Your task to perform on an android device: toggle priority inbox in the gmail app Image 0: 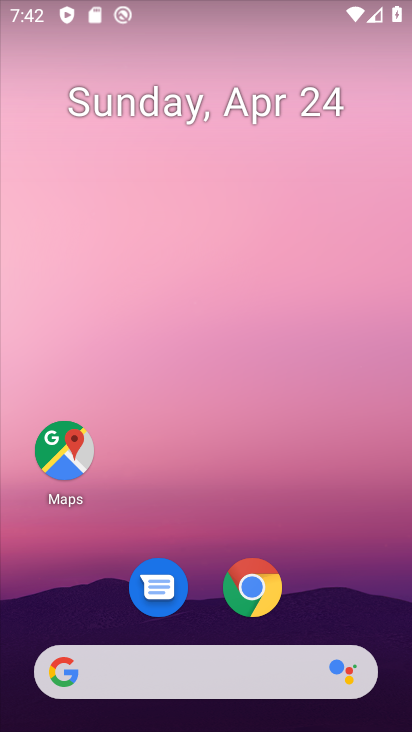
Step 0: drag from (371, 575) to (339, 125)
Your task to perform on an android device: toggle priority inbox in the gmail app Image 1: 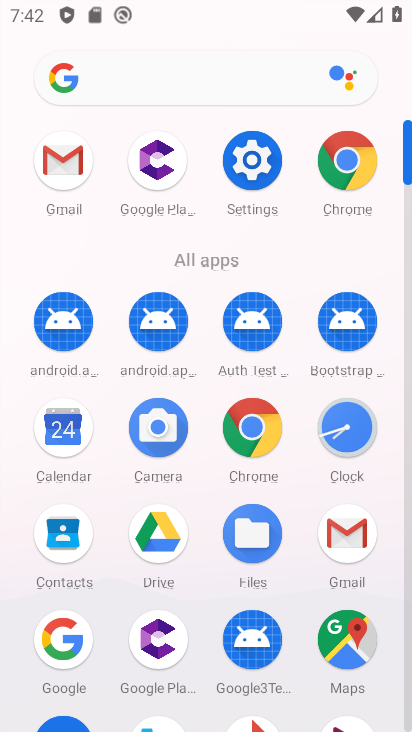
Step 1: click (360, 549)
Your task to perform on an android device: toggle priority inbox in the gmail app Image 2: 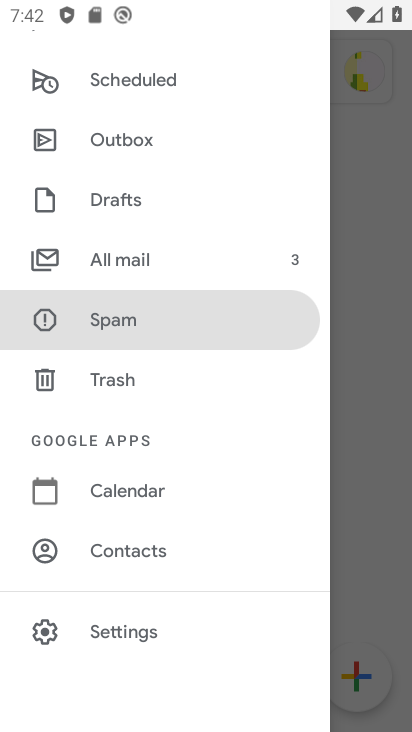
Step 2: click (146, 623)
Your task to perform on an android device: toggle priority inbox in the gmail app Image 3: 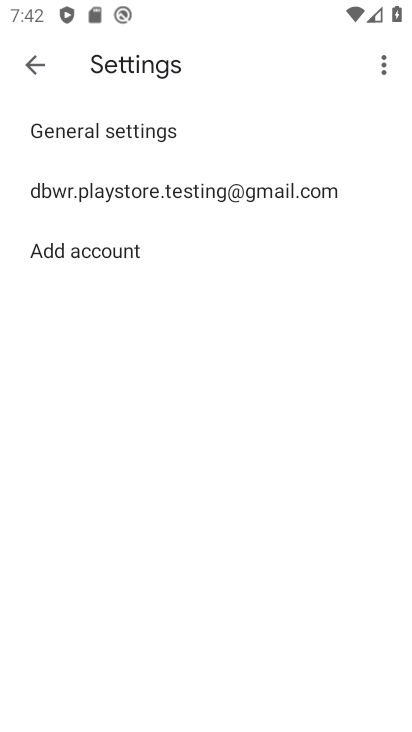
Step 3: click (151, 195)
Your task to perform on an android device: toggle priority inbox in the gmail app Image 4: 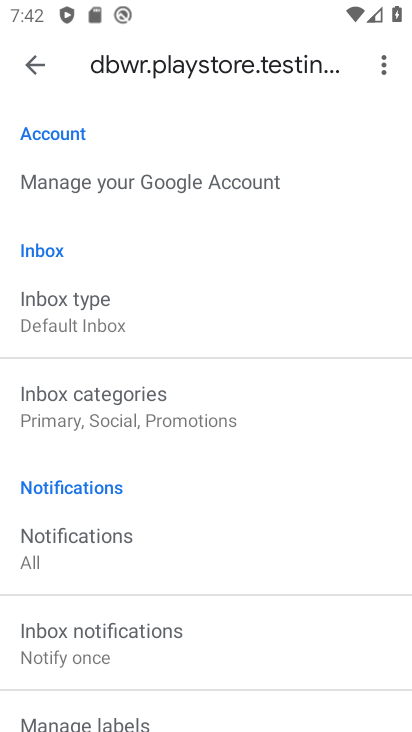
Step 4: click (85, 306)
Your task to perform on an android device: toggle priority inbox in the gmail app Image 5: 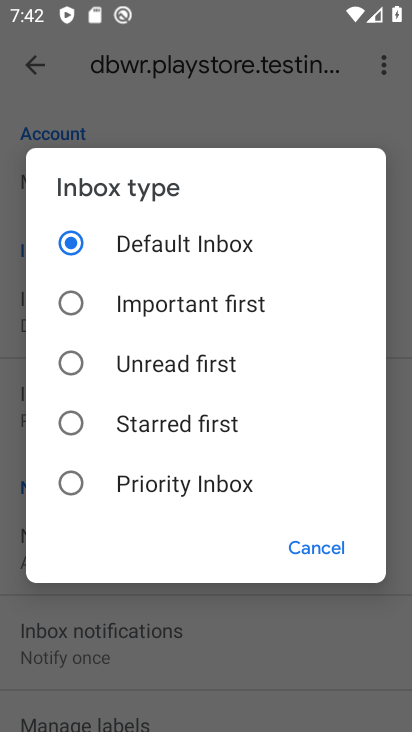
Step 5: click (135, 481)
Your task to perform on an android device: toggle priority inbox in the gmail app Image 6: 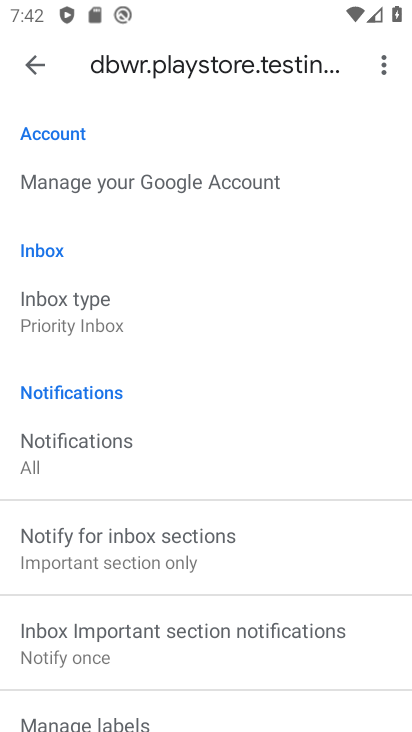
Step 6: task complete